Your task to perform on an android device: clear all cookies in the chrome app Image 0: 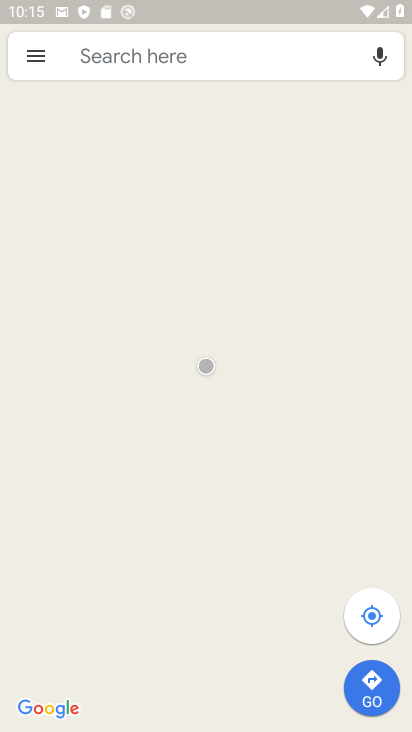
Step 0: press home button
Your task to perform on an android device: clear all cookies in the chrome app Image 1: 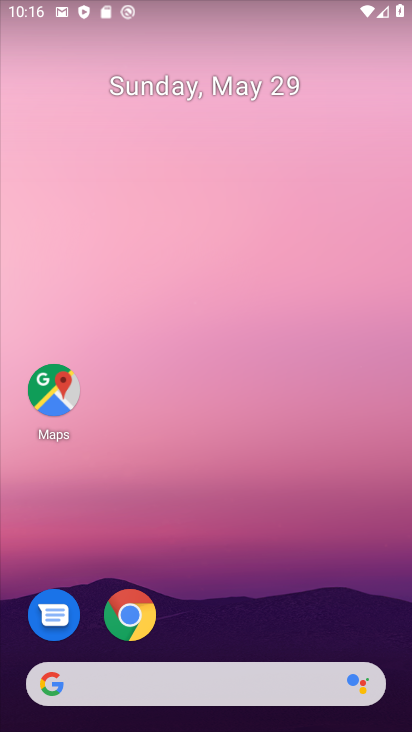
Step 1: drag from (297, 602) to (325, 263)
Your task to perform on an android device: clear all cookies in the chrome app Image 2: 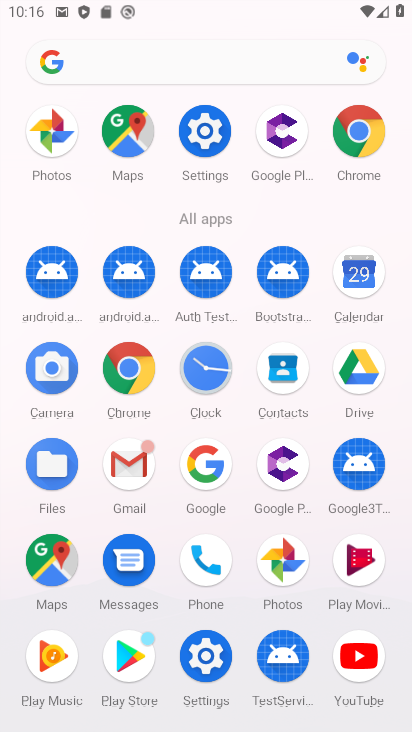
Step 2: click (126, 365)
Your task to perform on an android device: clear all cookies in the chrome app Image 3: 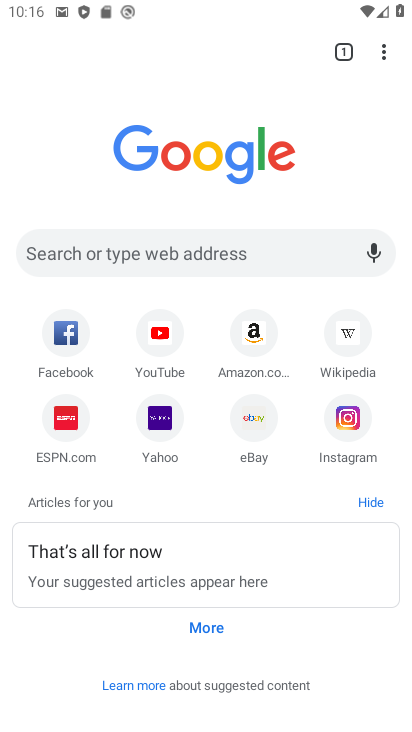
Step 3: click (382, 60)
Your task to perform on an android device: clear all cookies in the chrome app Image 4: 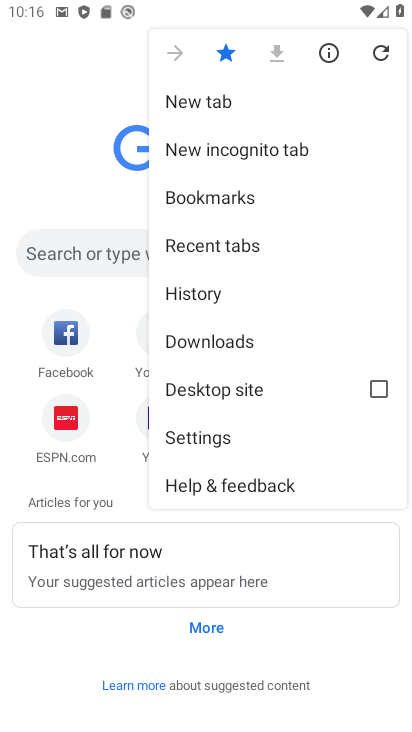
Step 4: click (220, 444)
Your task to perform on an android device: clear all cookies in the chrome app Image 5: 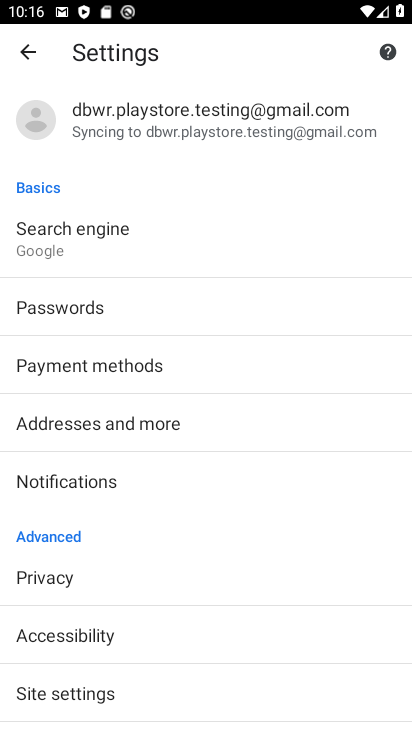
Step 5: drag from (253, 555) to (261, 465)
Your task to perform on an android device: clear all cookies in the chrome app Image 6: 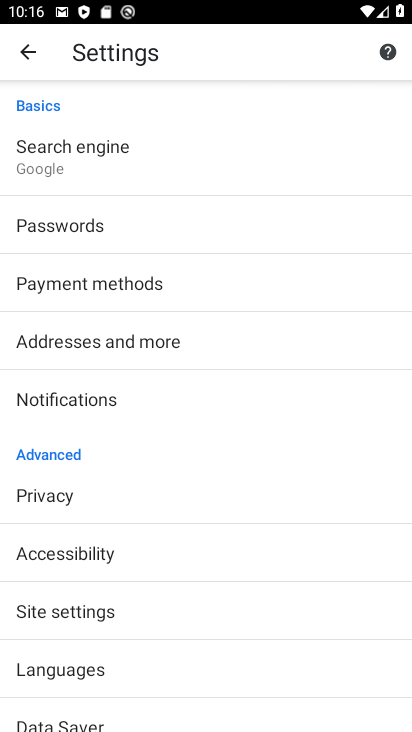
Step 6: drag from (288, 609) to (303, 499)
Your task to perform on an android device: clear all cookies in the chrome app Image 7: 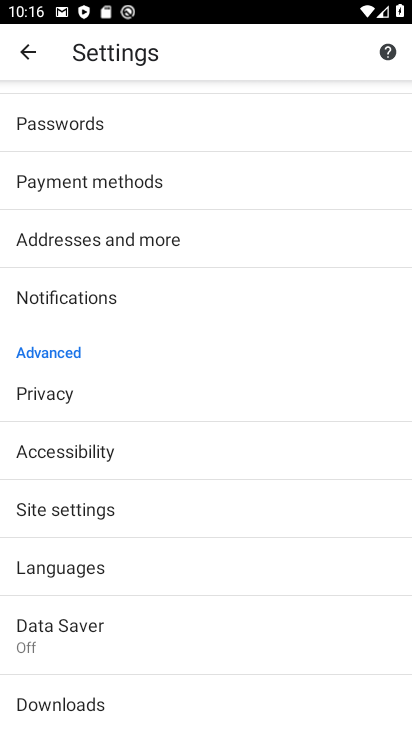
Step 7: drag from (303, 629) to (305, 499)
Your task to perform on an android device: clear all cookies in the chrome app Image 8: 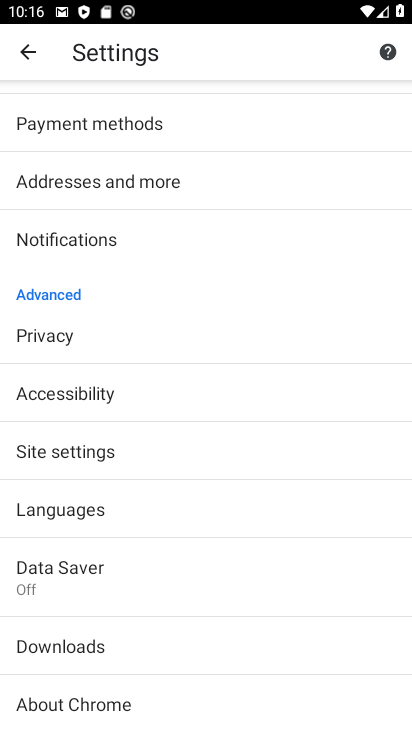
Step 8: drag from (300, 616) to (319, 445)
Your task to perform on an android device: clear all cookies in the chrome app Image 9: 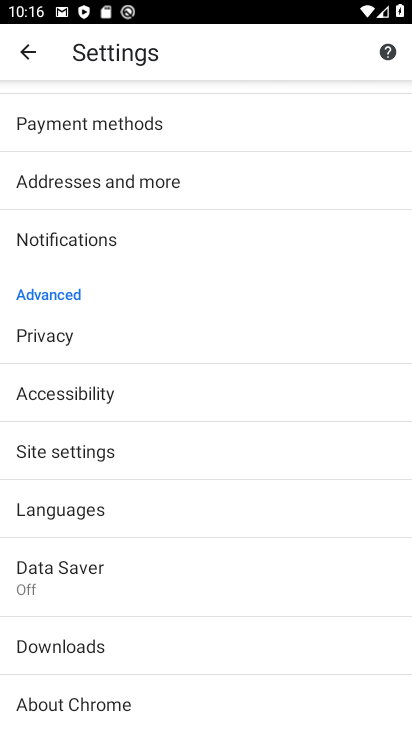
Step 9: drag from (301, 337) to (309, 548)
Your task to perform on an android device: clear all cookies in the chrome app Image 10: 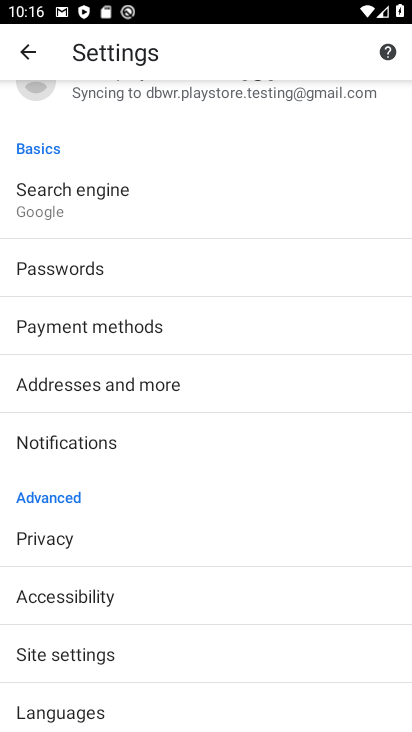
Step 10: click (204, 557)
Your task to perform on an android device: clear all cookies in the chrome app Image 11: 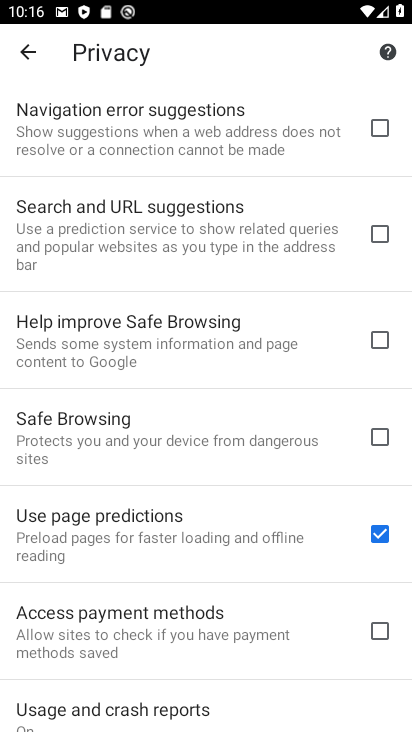
Step 11: drag from (295, 646) to (299, 548)
Your task to perform on an android device: clear all cookies in the chrome app Image 12: 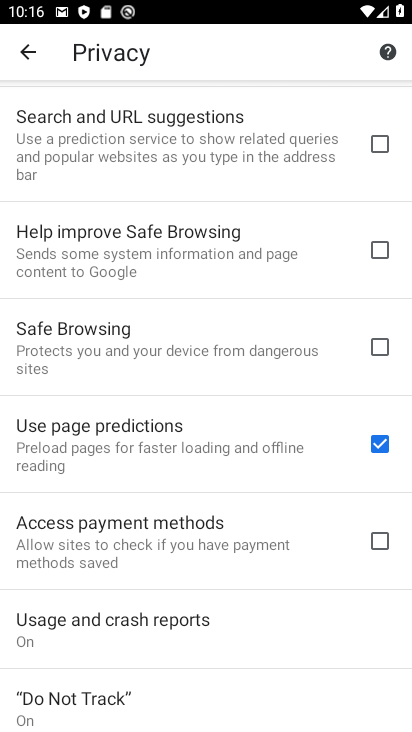
Step 12: drag from (299, 659) to (301, 560)
Your task to perform on an android device: clear all cookies in the chrome app Image 13: 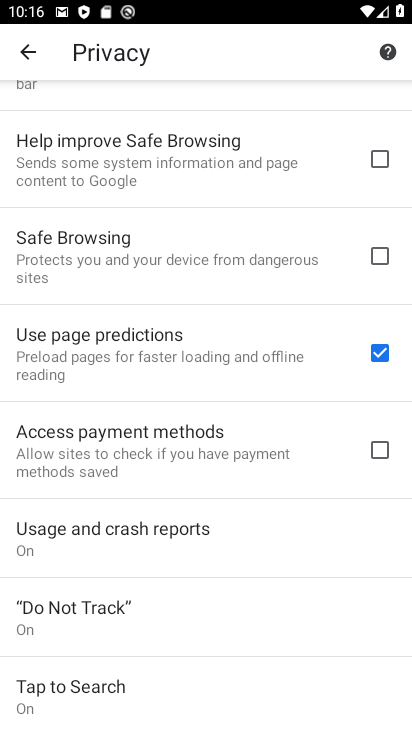
Step 13: drag from (300, 648) to (305, 490)
Your task to perform on an android device: clear all cookies in the chrome app Image 14: 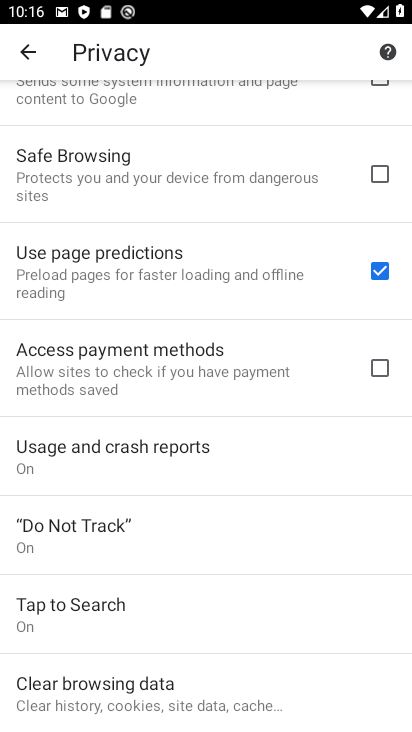
Step 14: click (233, 697)
Your task to perform on an android device: clear all cookies in the chrome app Image 15: 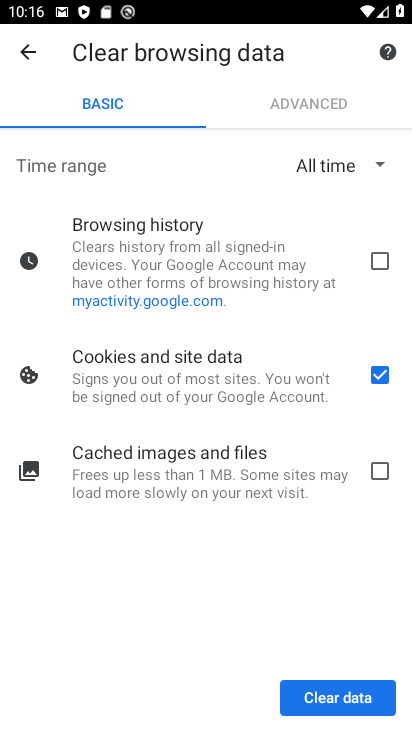
Step 15: drag from (386, 483) to (387, 245)
Your task to perform on an android device: clear all cookies in the chrome app Image 16: 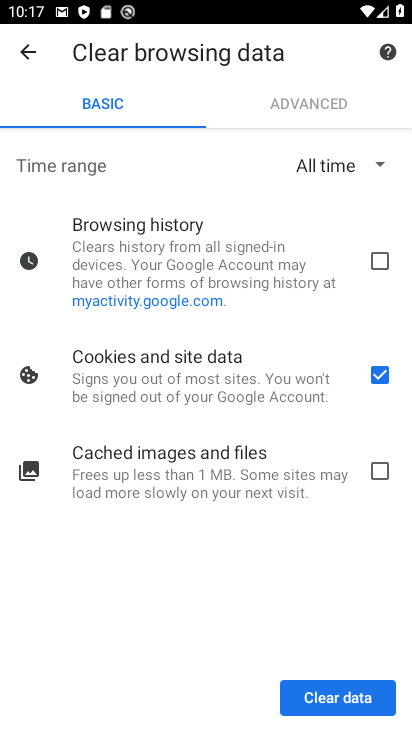
Step 16: click (369, 467)
Your task to perform on an android device: clear all cookies in the chrome app Image 17: 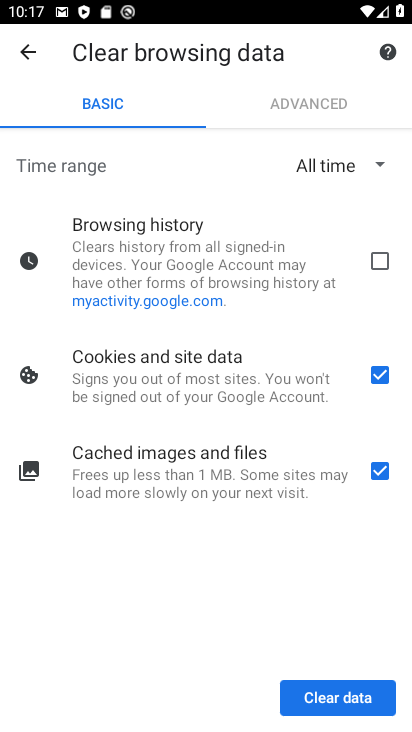
Step 17: click (376, 252)
Your task to perform on an android device: clear all cookies in the chrome app Image 18: 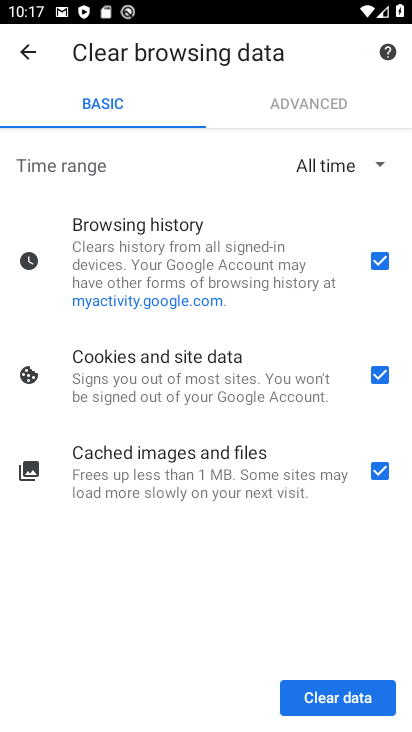
Step 18: click (325, 694)
Your task to perform on an android device: clear all cookies in the chrome app Image 19: 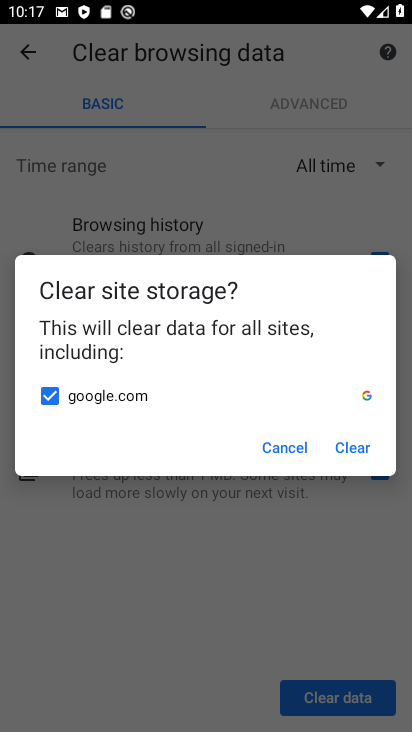
Step 19: click (371, 449)
Your task to perform on an android device: clear all cookies in the chrome app Image 20: 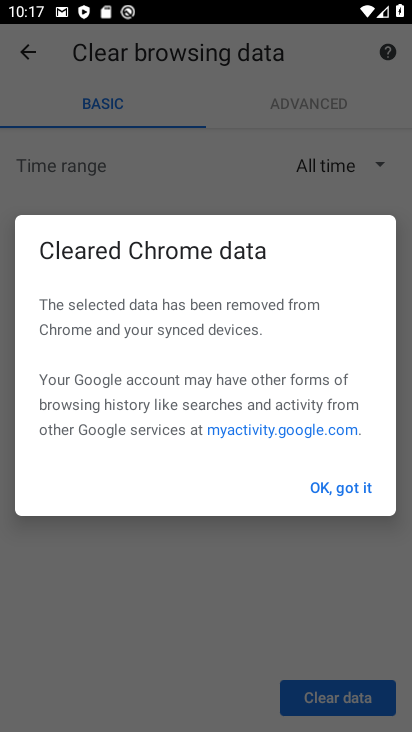
Step 20: click (347, 482)
Your task to perform on an android device: clear all cookies in the chrome app Image 21: 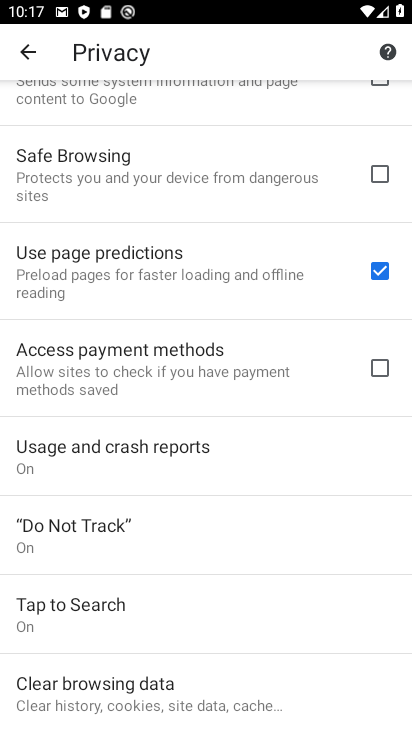
Step 21: task complete